Your task to perform on an android device: open the mobile data screen to see how much data has been used Image 0: 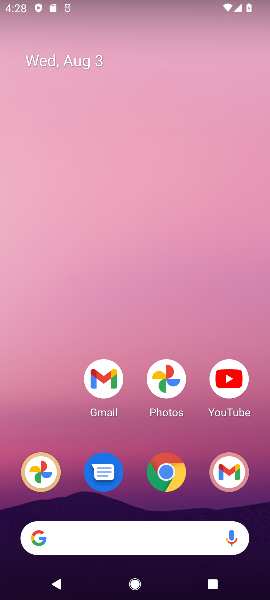
Step 0: drag from (55, 432) to (136, 53)
Your task to perform on an android device: open the mobile data screen to see how much data has been used Image 1: 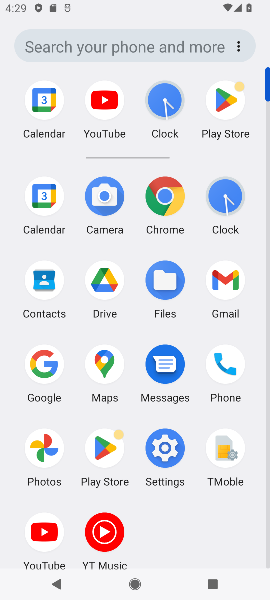
Step 1: click (157, 439)
Your task to perform on an android device: open the mobile data screen to see how much data has been used Image 2: 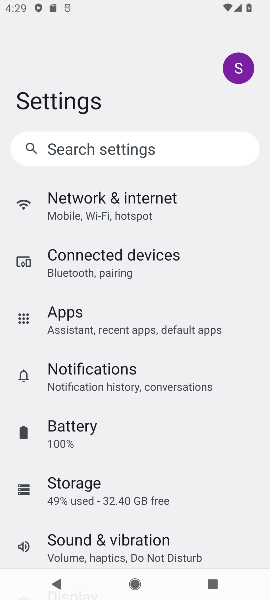
Step 2: click (121, 203)
Your task to perform on an android device: open the mobile data screen to see how much data has been used Image 3: 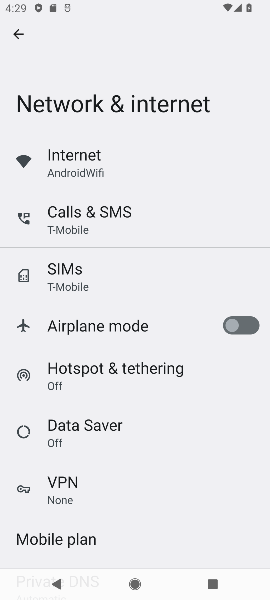
Step 3: click (100, 159)
Your task to perform on an android device: open the mobile data screen to see how much data has been used Image 4: 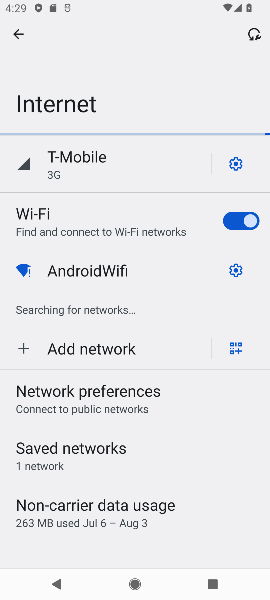
Step 4: click (173, 163)
Your task to perform on an android device: open the mobile data screen to see how much data has been used Image 5: 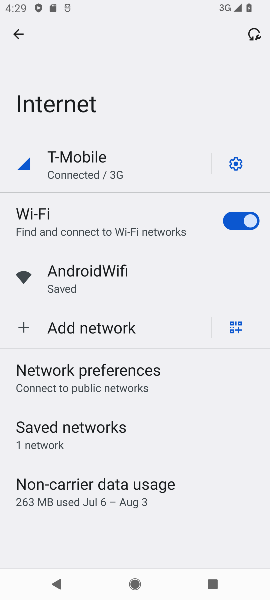
Step 5: click (232, 160)
Your task to perform on an android device: open the mobile data screen to see how much data has been used Image 6: 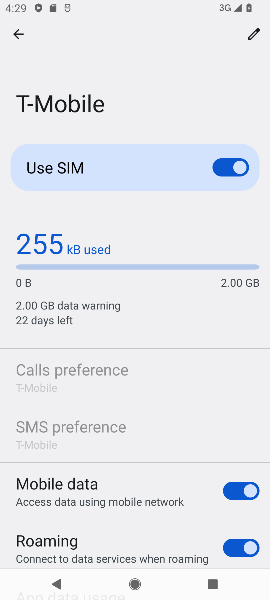
Step 6: task complete